Your task to perform on an android device: What is the recent news? Image 0: 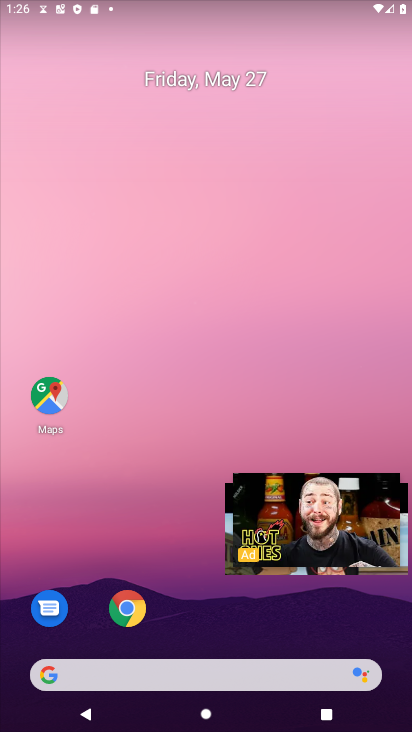
Step 0: click (320, 541)
Your task to perform on an android device: What is the recent news? Image 1: 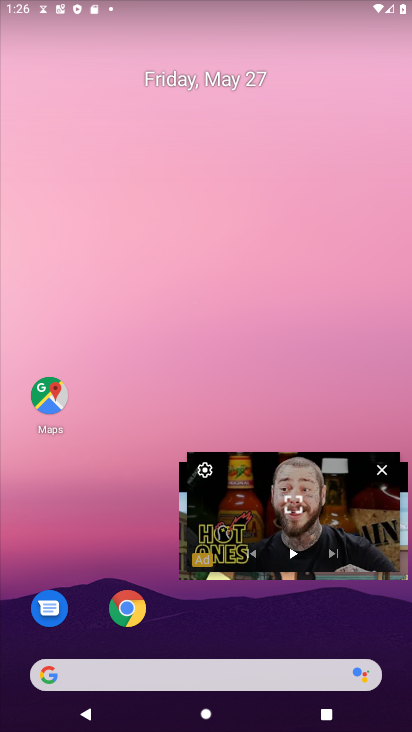
Step 1: click (271, 494)
Your task to perform on an android device: What is the recent news? Image 2: 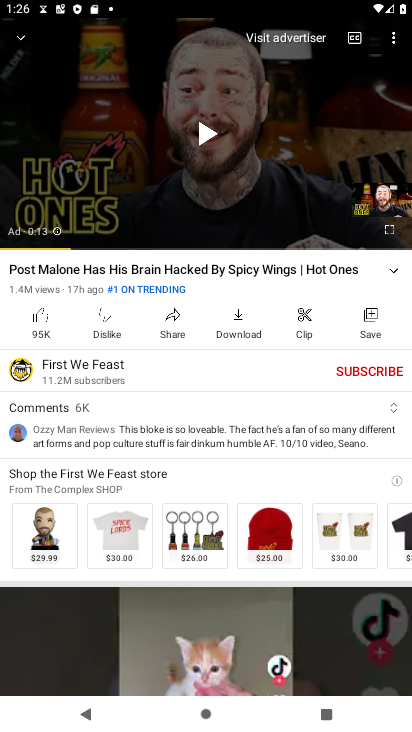
Step 2: press home button
Your task to perform on an android device: What is the recent news? Image 3: 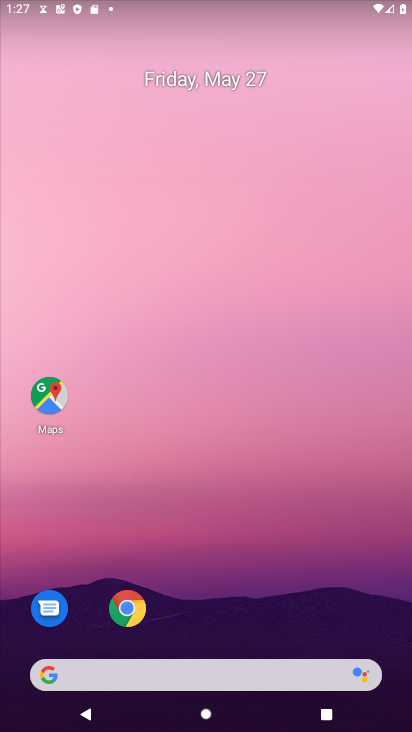
Step 3: click (207, 674)
Your task to perform on an android device: What is the recent news? Image 4: 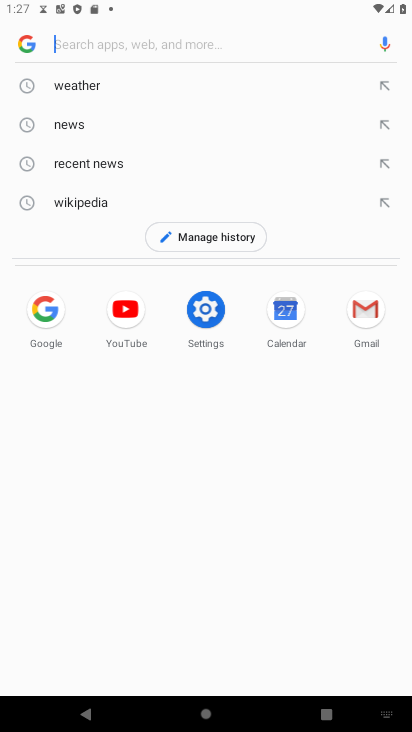
Step 4: click (85, 160)
Your task to perform on an android device: What is the recent news? Image 5: 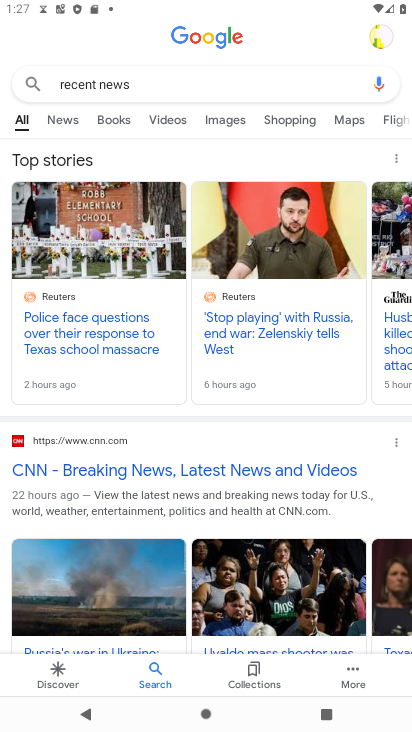
Step 5: task complete